Your task to perform on an android device: change alarm snooze length Image 0: 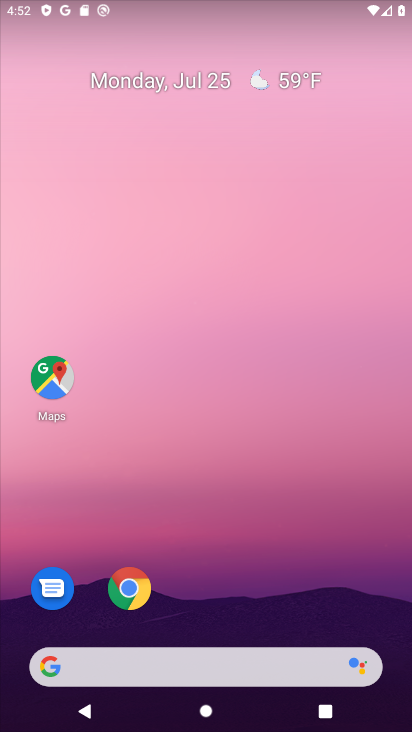
Step 0: drag from (302, 482) to (324, 20)
Your task to perform on an android device: change alarm snooze length Image 1: 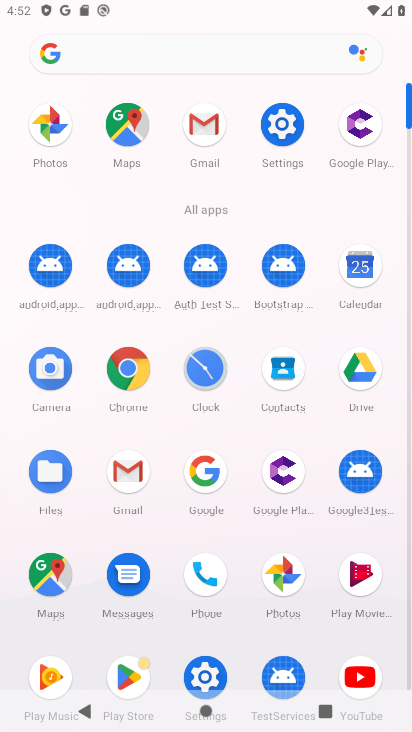
Step 1: click (203, 374)
Your task to perform on an android device: change alarm snooze length Image 2: 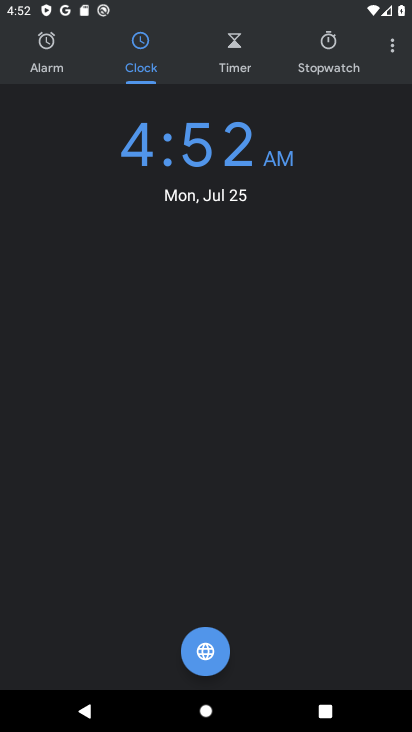
Step 2: click (396, 51)
Your task to perform on an android device: change alarm snooze length Image 3: 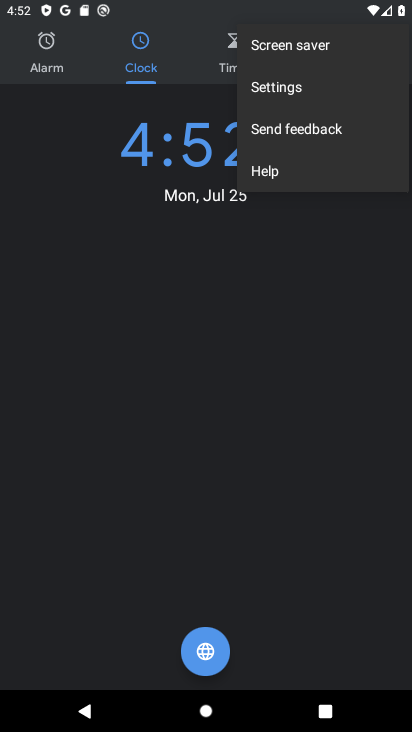
Step 3: click (272, 83)
Your task to perform on an android device: change alarm snooze length Image 4: 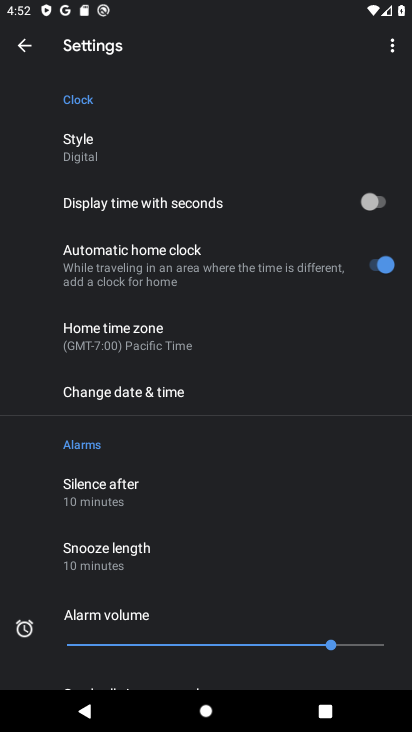
Step 4: click (137, 495)
Your task to perform on an android device: change alarm snooze length Image 5: 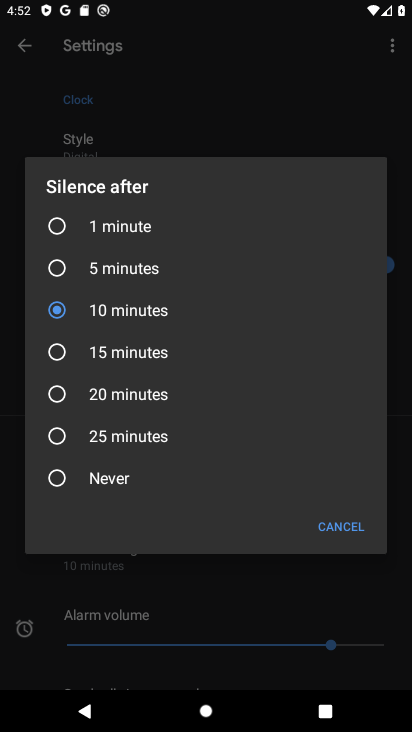
Step 5: click (123, 433)
Your task to perform on an android device: change alarm snooze length Image 6: 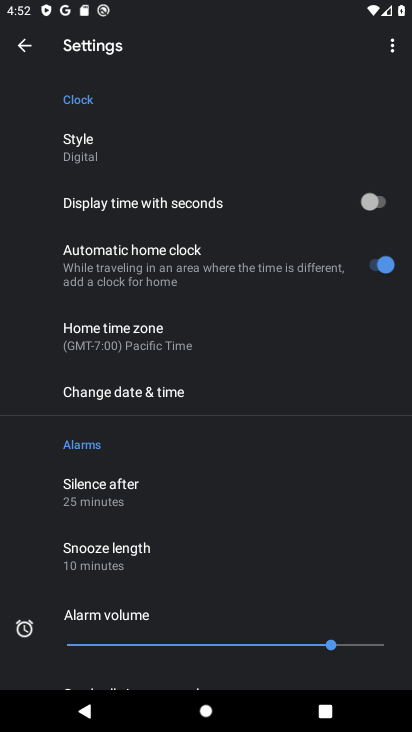
Step 6: task complete